Your task to perform on an android device: Open eBay Image 0: 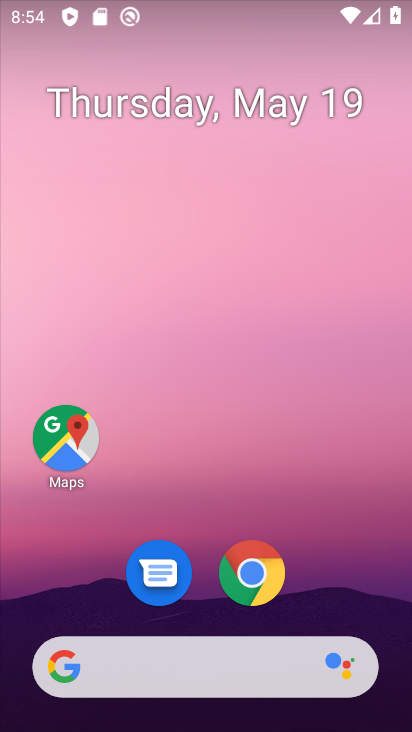
Step 0: click (232, 567)
Your task to perform on an android device: Open eBay Image 1: 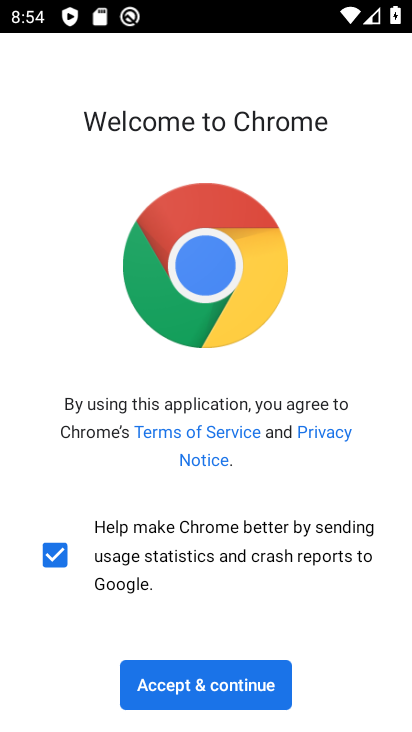
Step 1: click (199, 701)
Your task to perform on an android device: Open eBay Image 2: 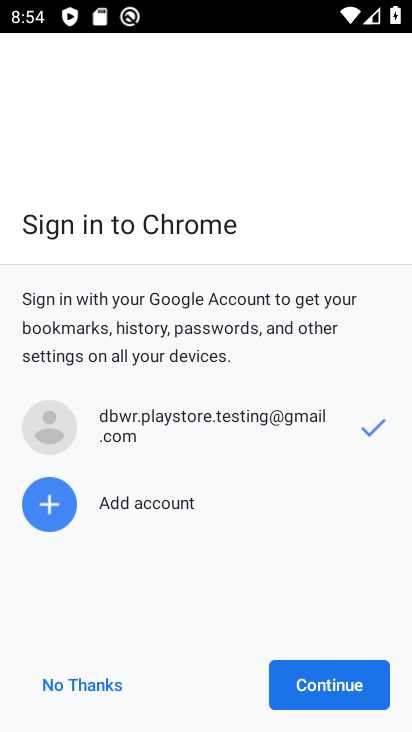
Step 2: click (337, 689)
Your task to perform on an android device: Open eBay Image 3: 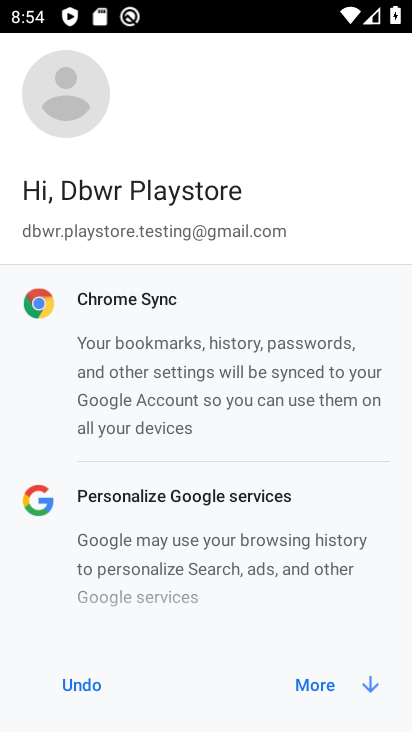
Step 3: click (315, 694)
Your task to perform on an android device: Open eBay Image 4: 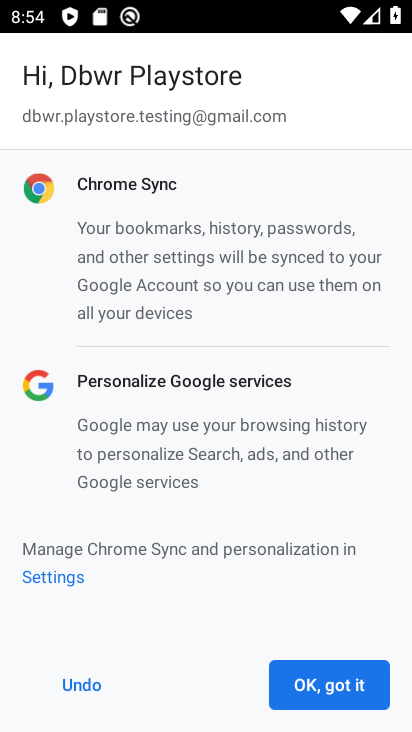
Step 4: click (315, 694)
Your task to perform on an android device: Open eBay Image 5: 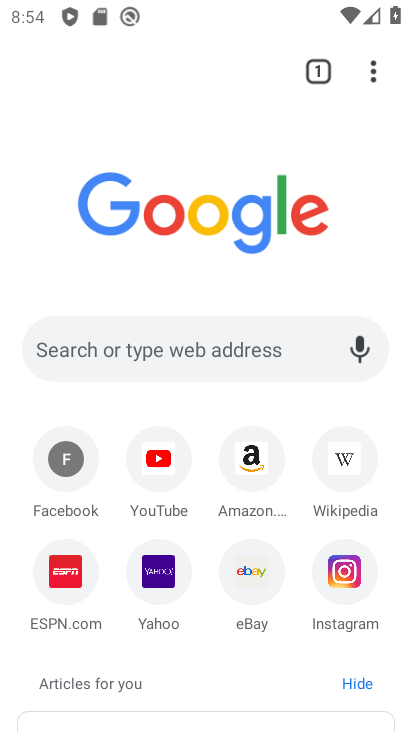
Step 5: click (241, 582)
Your task to perform on an android device: Open eBay Image 6: 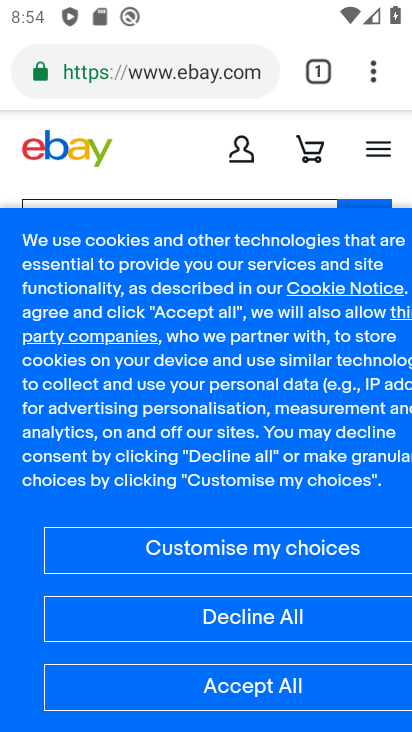
Step 6: task complete